Your task to perform on an android device: turn pop-ups off in chrome Image 0: 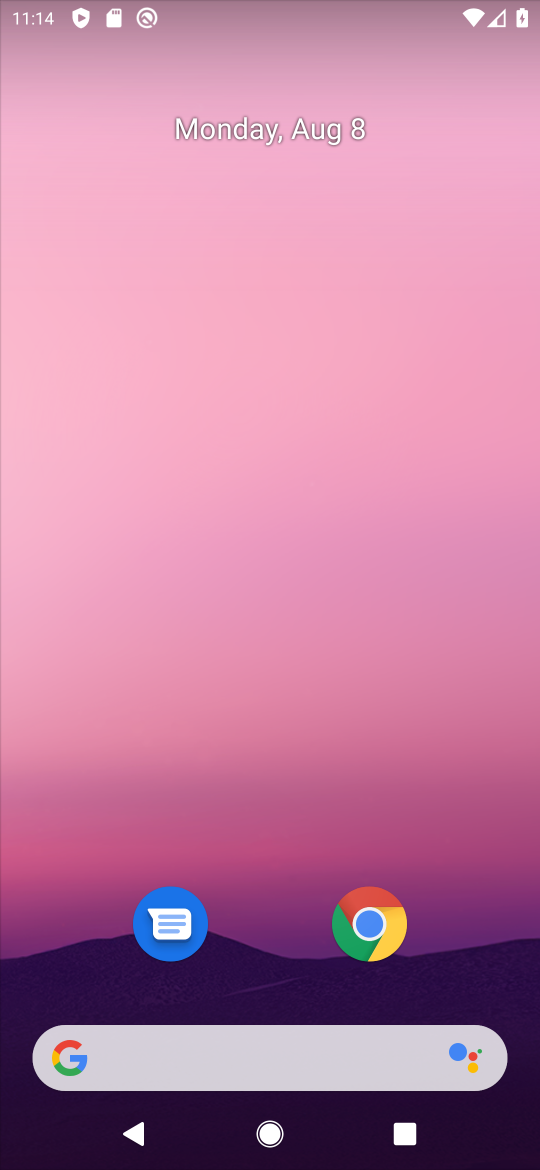
Step 0: drag from (330, 1014) to (452, 14)
Your task to perform on an android device: turn pop-ups off in chrome Image 1: 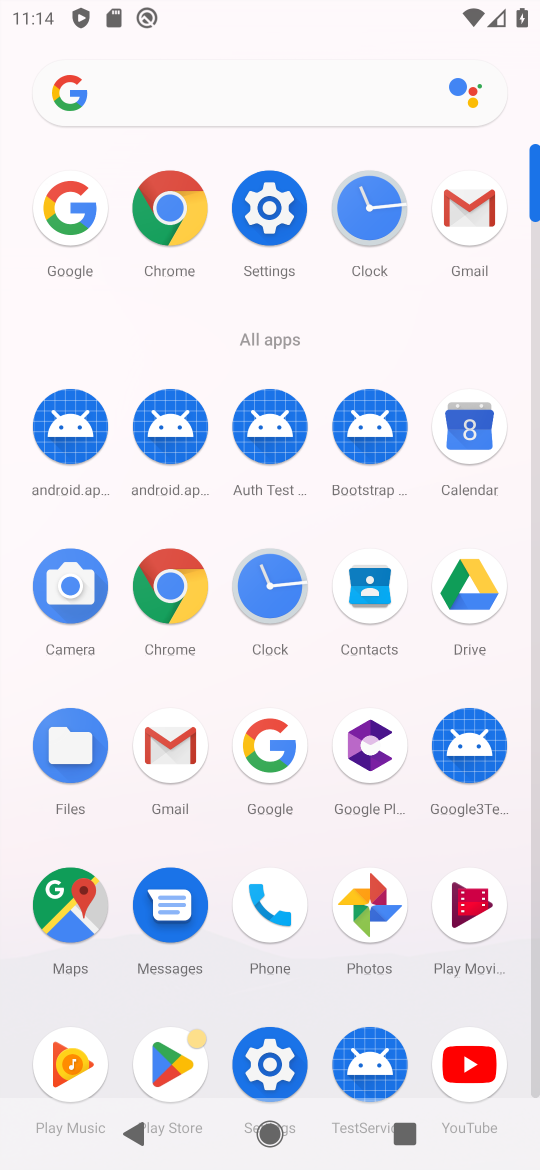
Step 1: click (165, 605)
Your task to perform on an android device: turn pop-ups off in chrome Image 2: 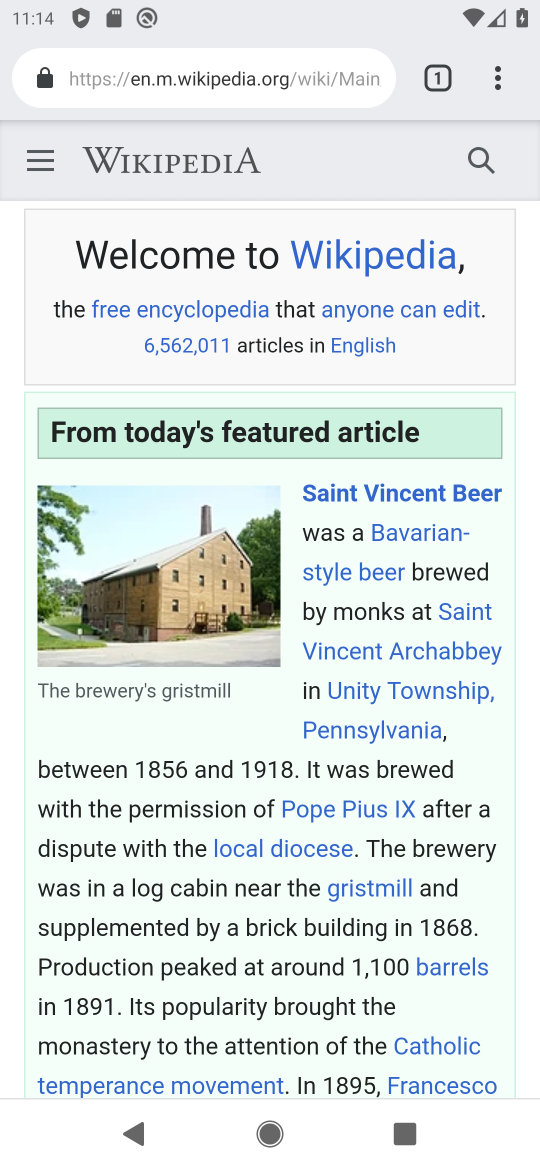
Step 2: click (502, 79)
Your task to perform on an android device: turn pop-ups off in chrome Image 3: 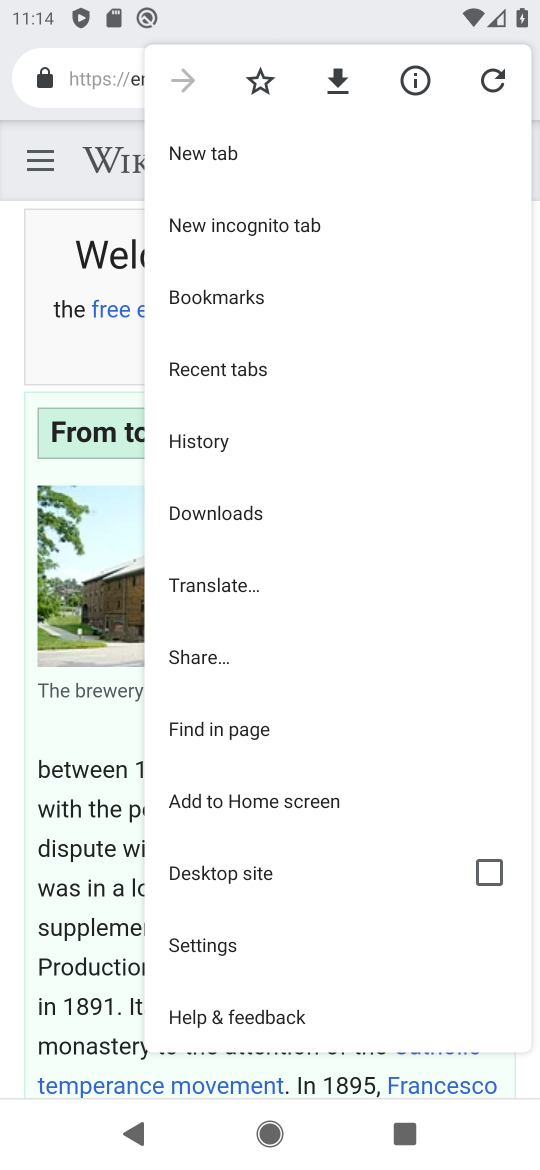
Step 3: click (185, 921)
Your task to perform on an android device: turn pop-ups off in chrome Image 4: 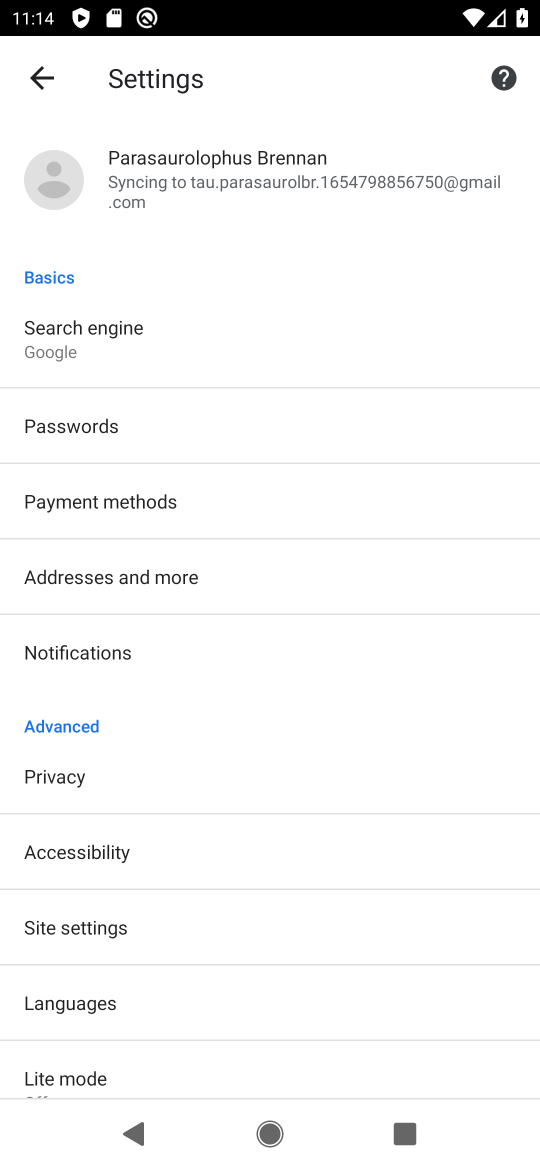
Step 4: click (88, 933)
Your task to perform on an android device: turn pop-ups off in chrome Image 5: 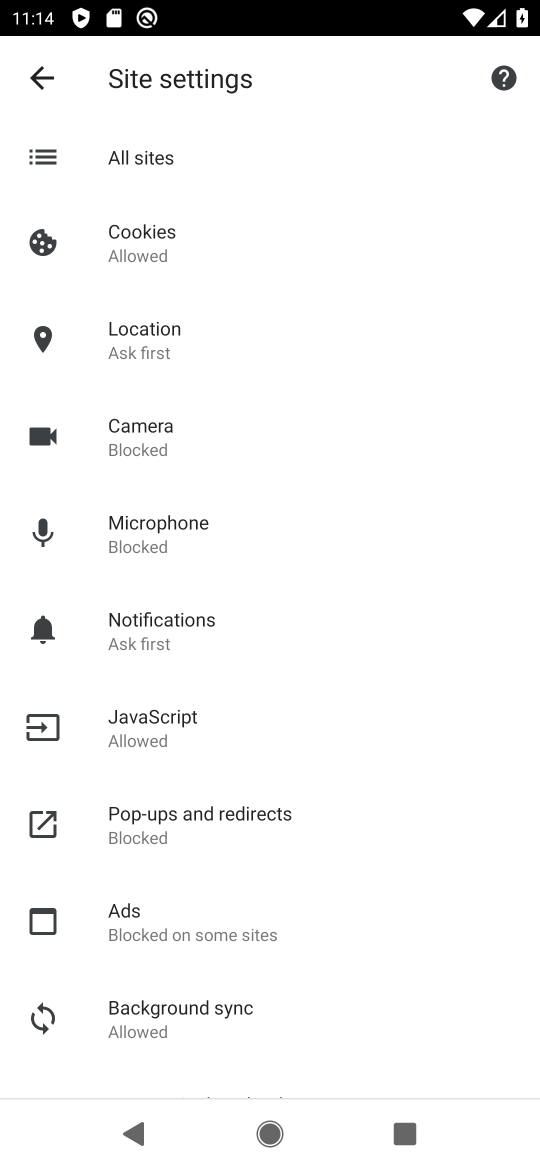
Step 5: click (238, 809)
Your task to perform on an android device: turn pop-ups off in chrome Image 6: 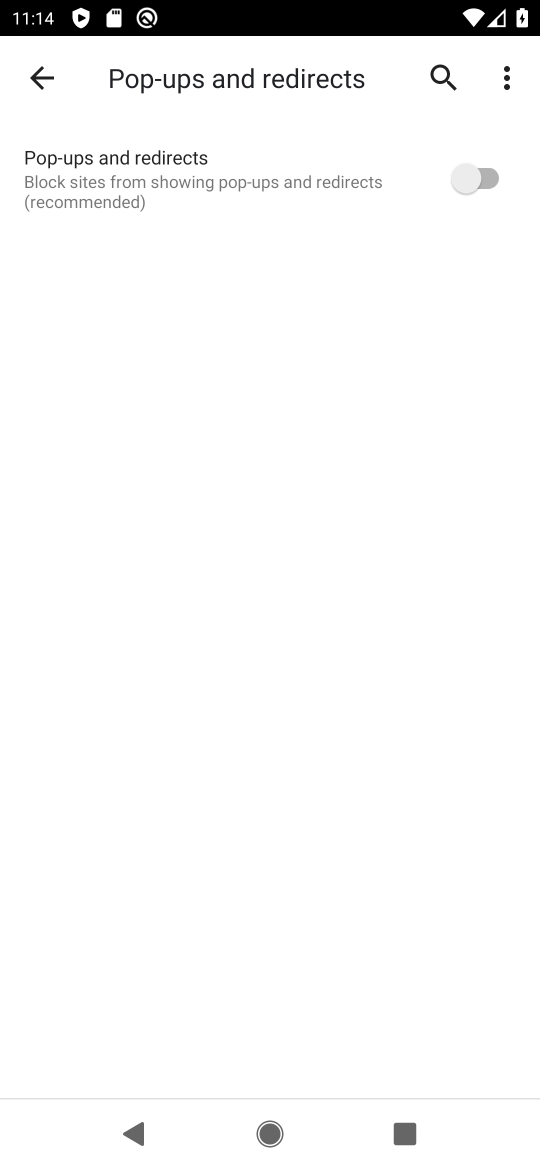
Step 6: task complete